Your task to perform on an android device: turn off sleep mode Image 0: 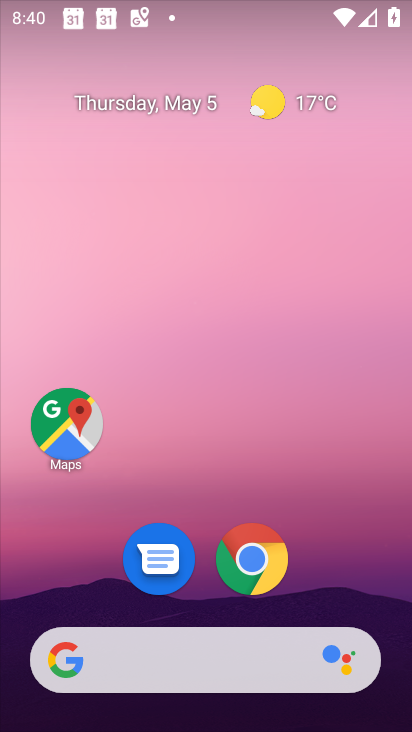
Step 0: drag from (353, 611) to (364, 108)
Your task to perform on an android device: turn off sleep mode Image 1: 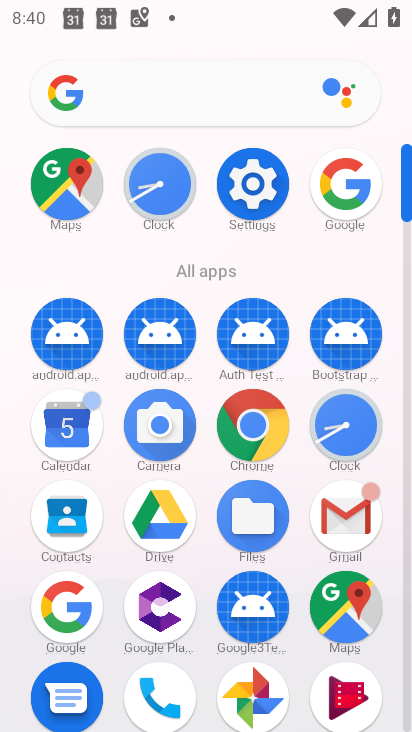
Step 1: click (253, 189)
Your task to perform on an android device: turn off sleep mode Image 2: 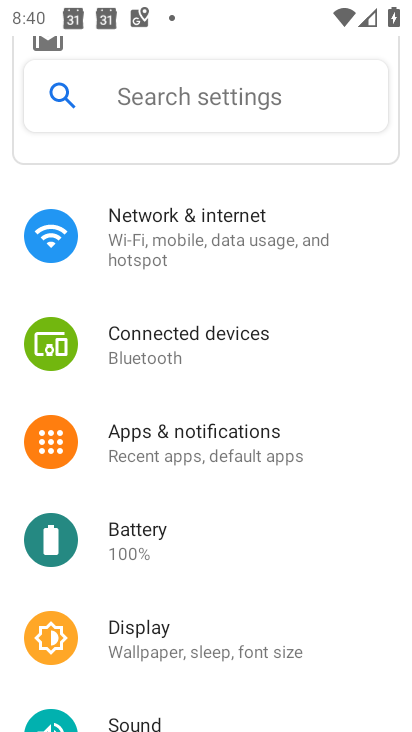
Step 2: click (143, 653)
Your task to perform on an android device: turn off sleep mode Image 3: 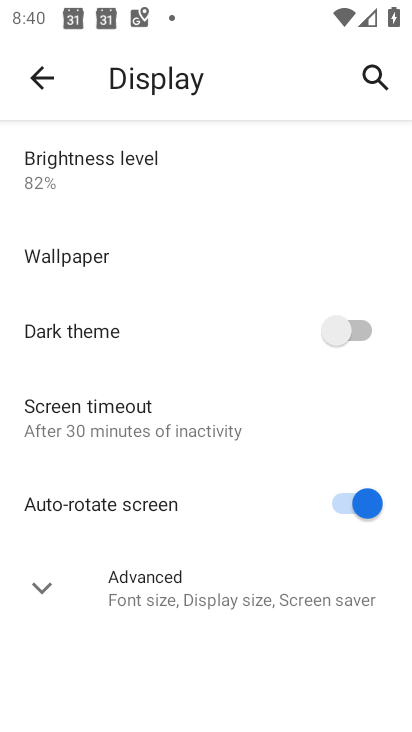
Step 3: click (39, 596)
Your task to perform on an android device: turn off sleep mode Image 4: 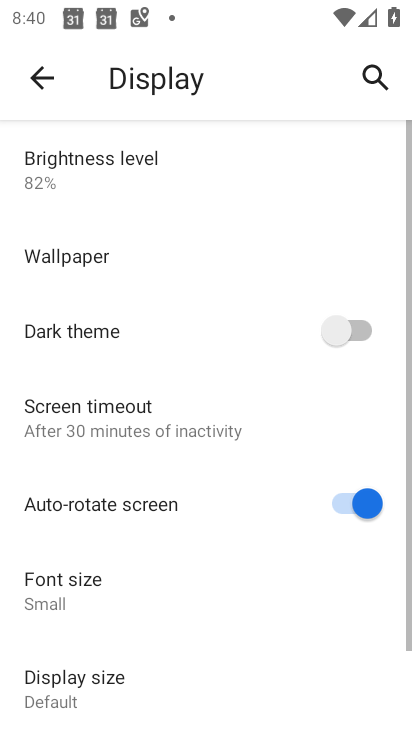
Step 4: task complete